Your task to perform on an android device: Go to eBay Image 0: 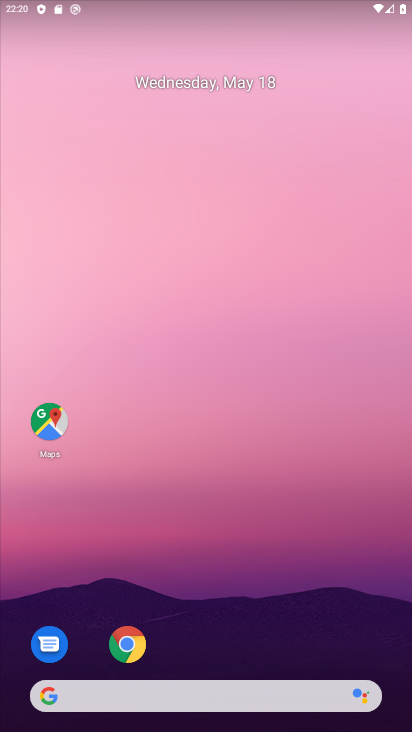
Step 0: click (118, 643)
Your task to perform on an android device: Go to eBay Image 1: 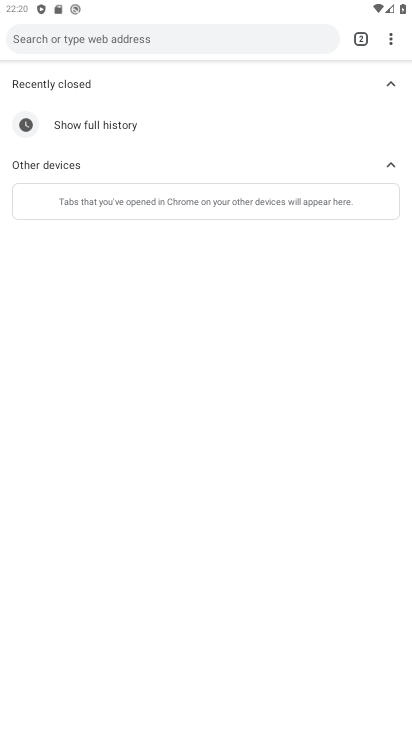
Step 1: click (163, 37)
Your task to perform on an android device: Go to eBay Image 2: 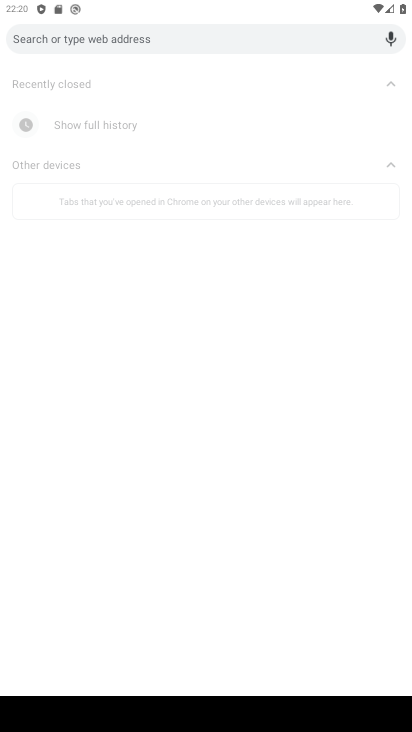
Step 2: type "ebay"
Your task to perform on an android device: Go to eBay Image 3: 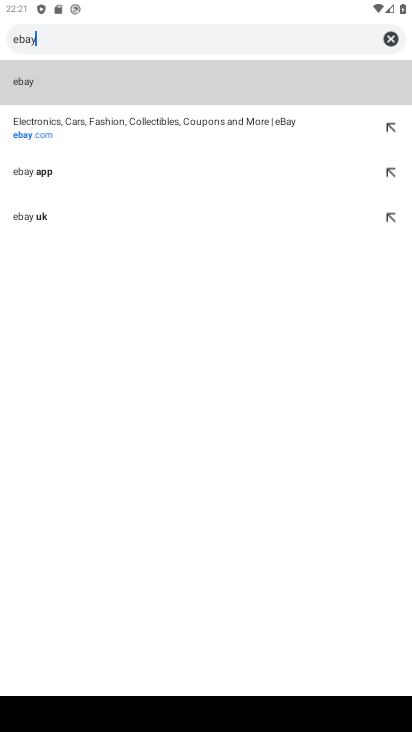
Step 3: click (38, 133)
Your task to perform on an android device: Go to eBay Image 4: 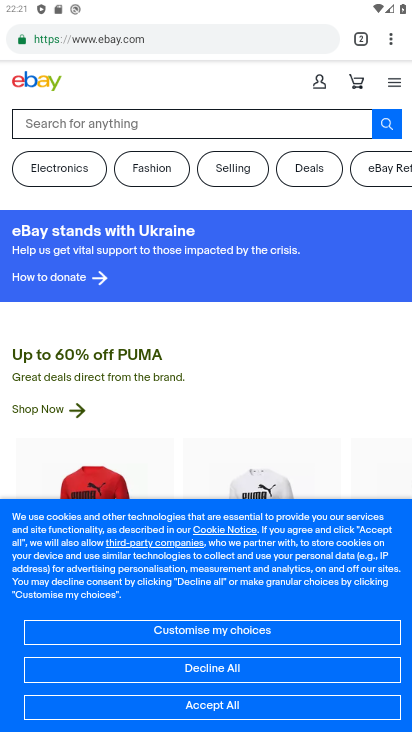
Step 4: task complete